Your task to perform on an android device: check data usage Image 0: 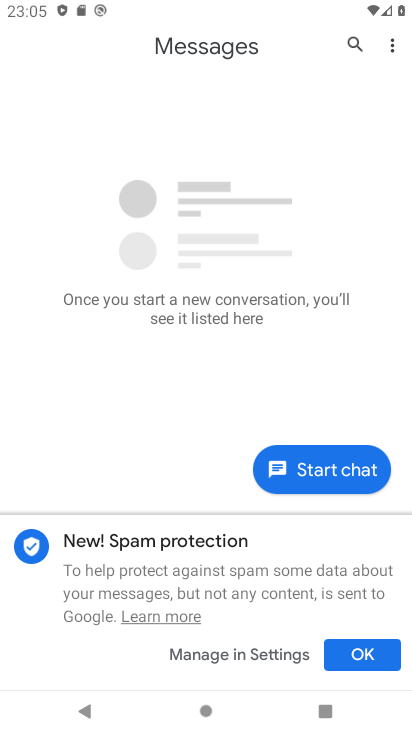
Step 0: press home button
Your task to perform on an android device: check data usage Image 1: 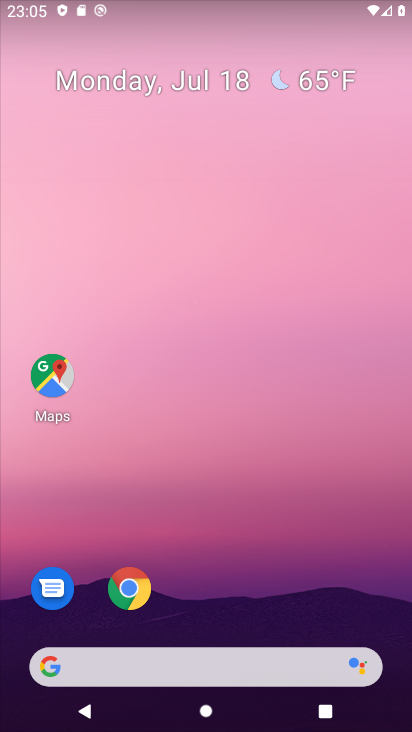
Step 1: drag from (273, 580) to (256, 80)
Your task to perform on an android device: check data usage Image 2: 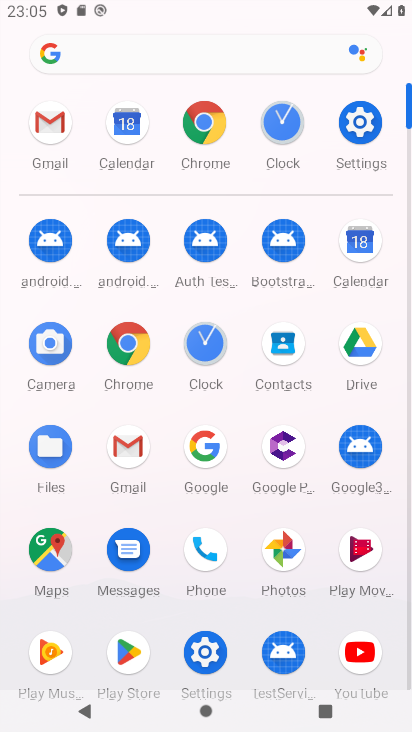
Step 2: click (366, 112)
Your task to perform on an android device: check data usage Image 3: 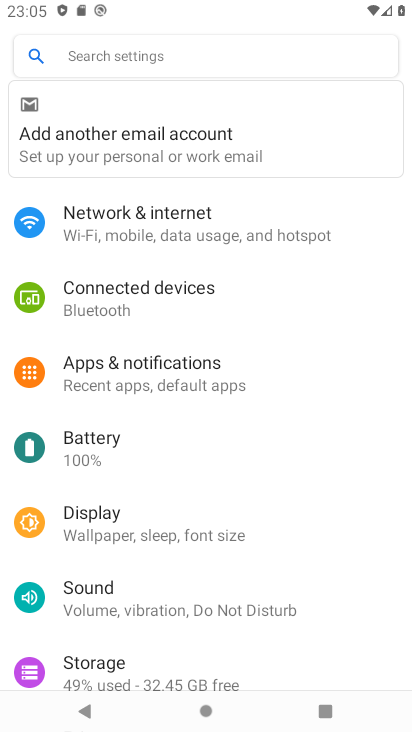
Step 3: click (129, 223)
Your task to perform on an android device: check data usage Image 4: 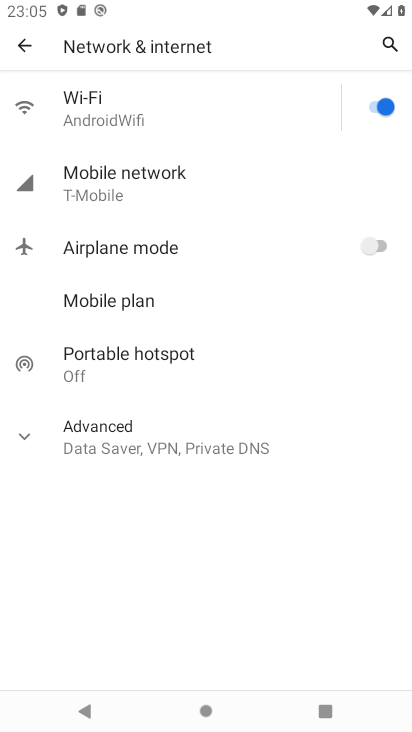
Step 4: click (133, 180)
Your task to perform on an android device: check data usage Image 5: 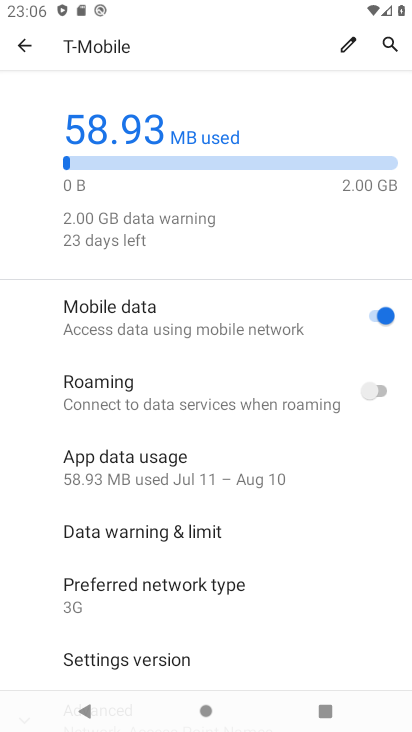
Step 5: task complete